Your task to perform on an android device: Open Reddit.com Image 0: 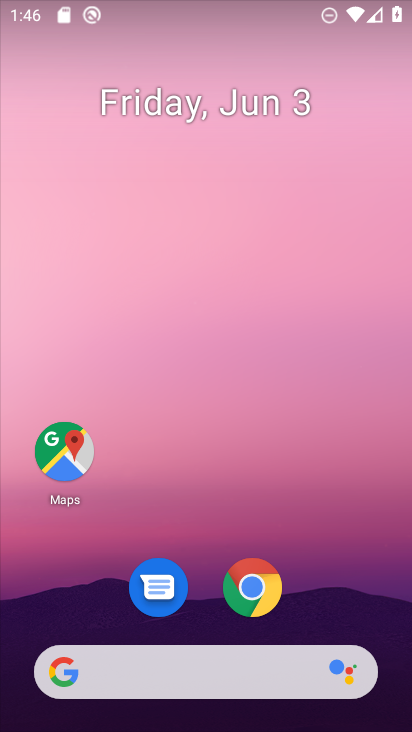
Step 0: click (260, 581)
Your task to perform on an android device: Open Reddit.com Image 1: 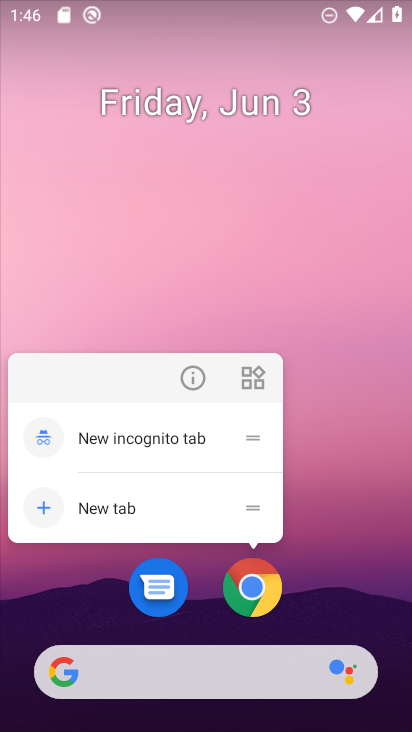
Step 1: click (261, 580)
Your task to perform on an android device: Open Reddit.com Image 2: 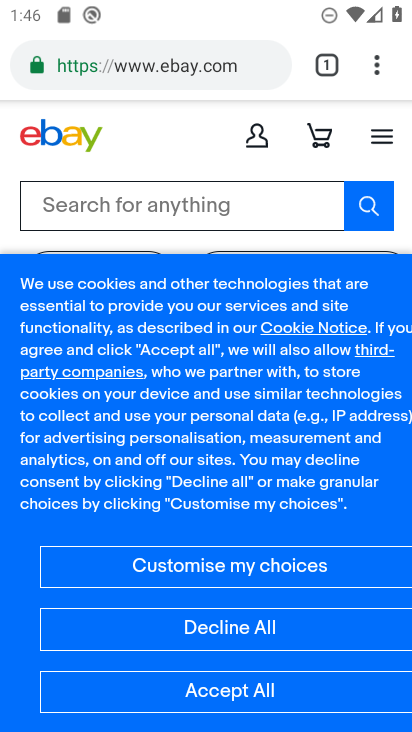
Step 2: click (168, 74)
Your task to perform on an android device: Open Reddit.com Image 3: 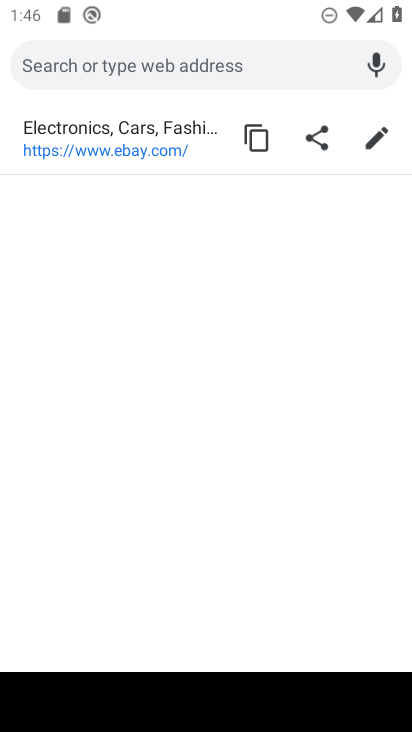
Step 3: type "Reddit.com"
Your task to perform on an android device: Open Reddit.com Image 4: 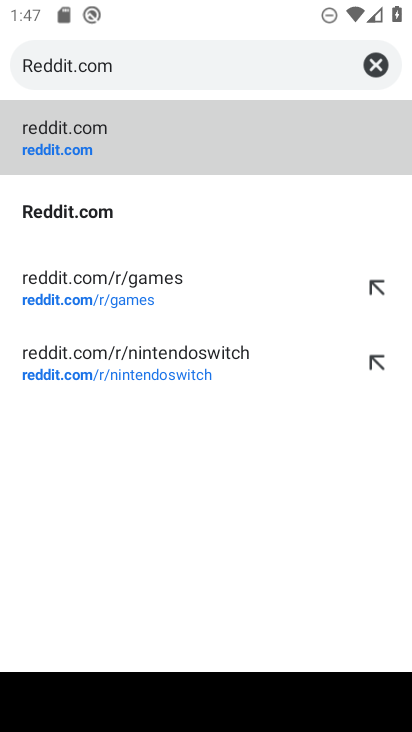
Step 4: click (64, 139)
Your task to perform on an android device: Open Reddit.com Image 5: 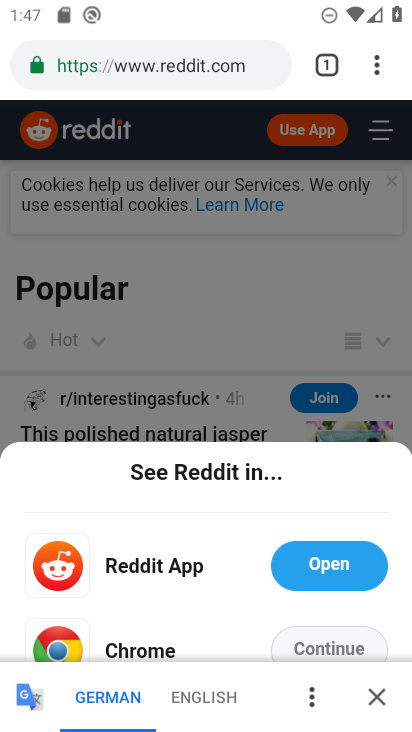
Step 5: task complete